Your task to perform on an android device: turn on bluetooth scan Image 0: 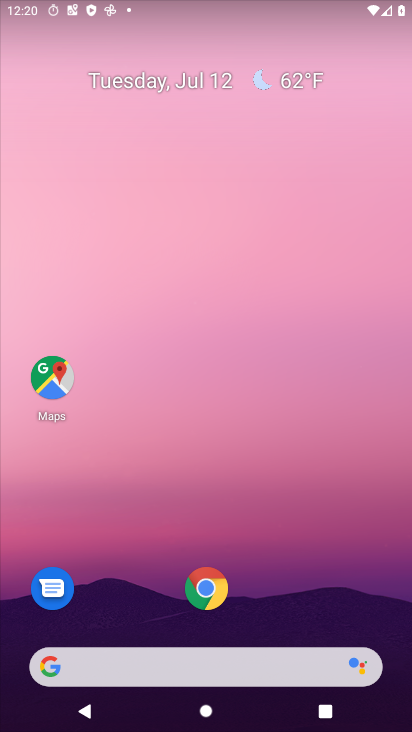
Step 0: drag from (184, 619) to (191, 164)
Your task to perform on an android device: turn on bluetooth scan Image 1: 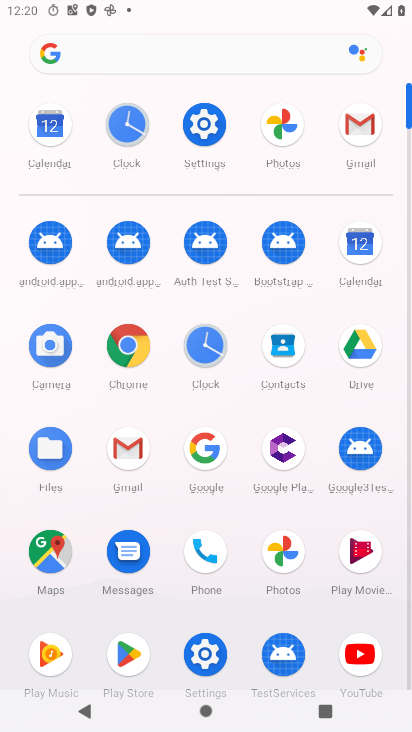
Step 1: click (202, 127)
Your task to perform on an android device: turn on bluetooth scan Image 2: 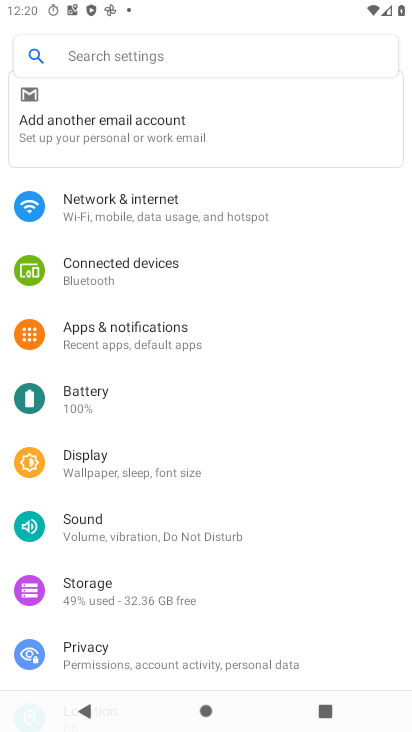
Step 2: drag from (186, 632) to (192, 100)
Your task to perform on an android device: turn on bluetooth scan Image 3: 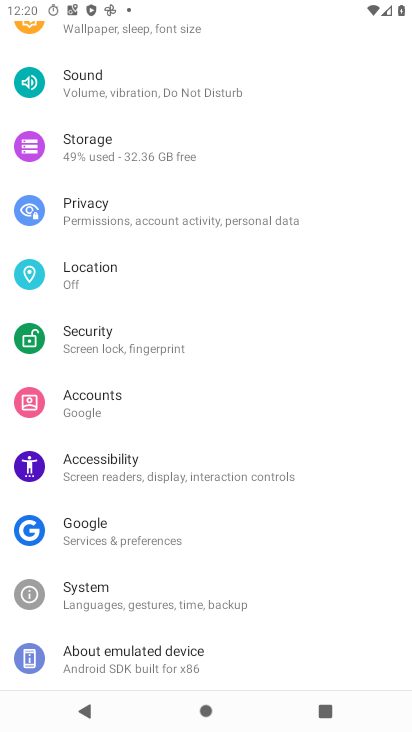
Step 3: click (94, 291)
Your task to perform on an android device: turn on bluetooth scan Image 4: 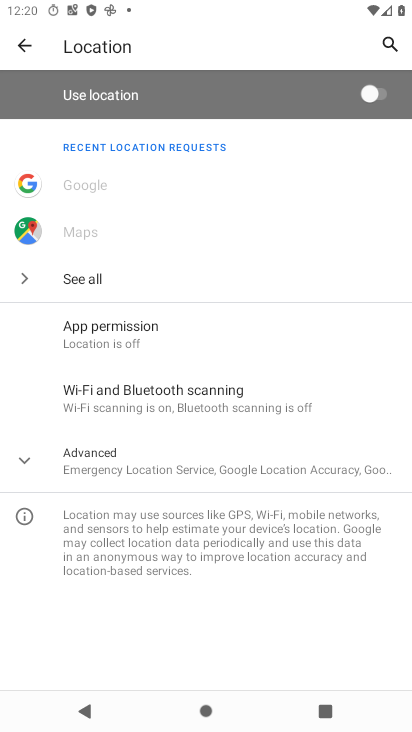
Step 4: click (186, 408)
Your task to perform on an android device: turn on bluetooth scan Image 5: 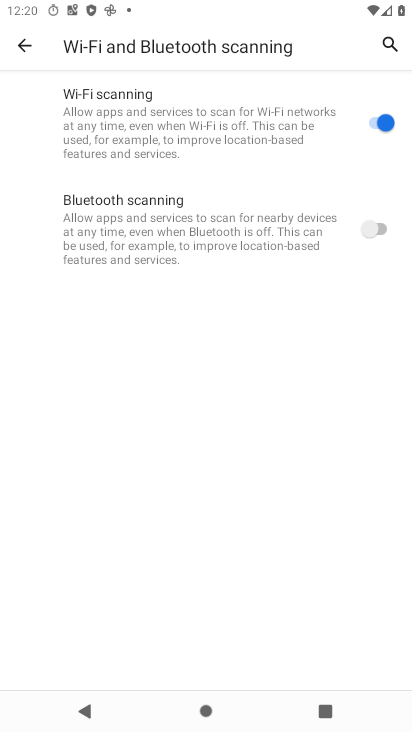
Step 5: click (378, 230)
Your task to perform on an android device: turn on bluetooth scan Image 6: 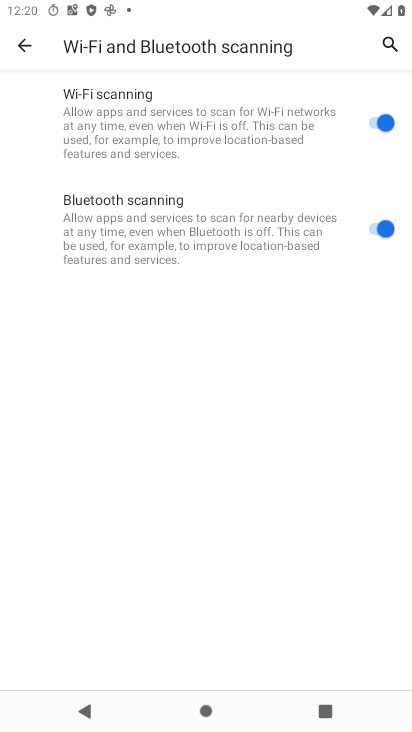
Step 6: task complete